Your task to perform on an android device: check battery use Image 0: 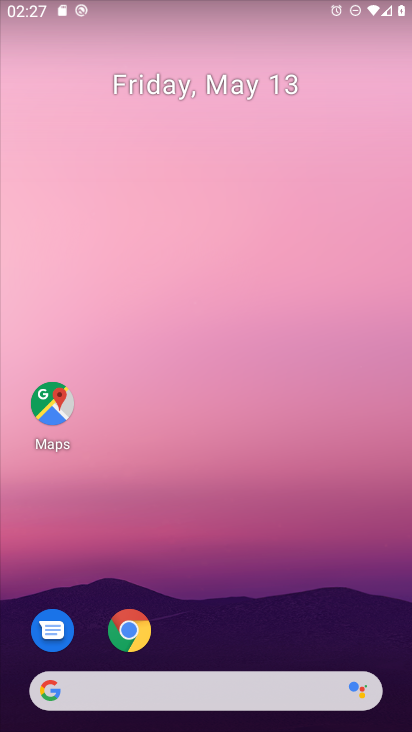
Step 0: drag from (248, 708) to (239, 307)
Your task to perform on an android device: check battery use Image 1: 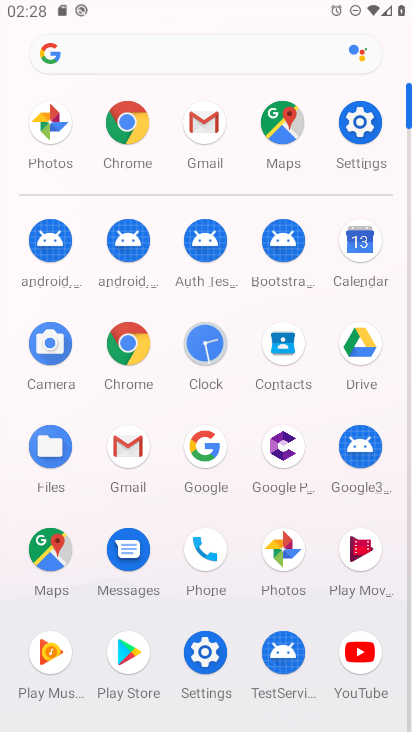
Step 1: click (367, 139)
Your task to perform on an android device: check battery use Image 2: 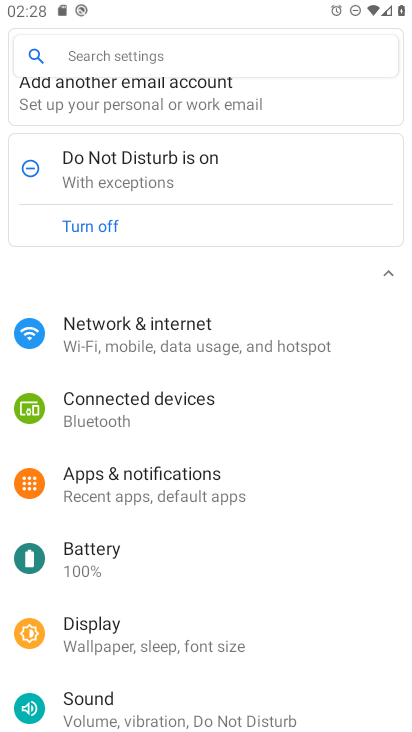
Step 2: click (126, 539)
Your task to perform on an android device: check battery use Image 3: 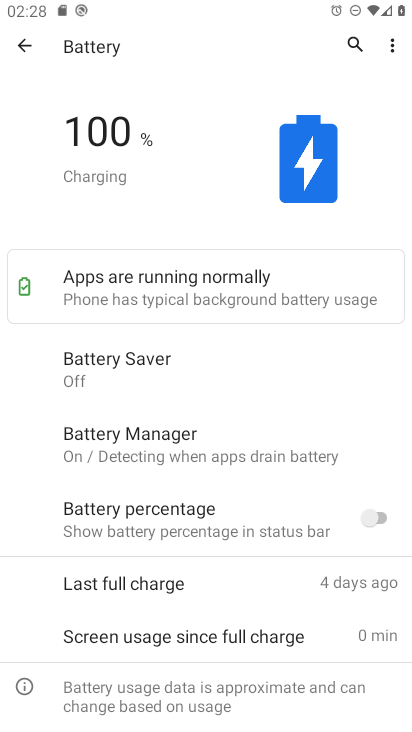
Step 3: task complete